Your task to perform on an android device: snooze an email in the gmail app Image 0: 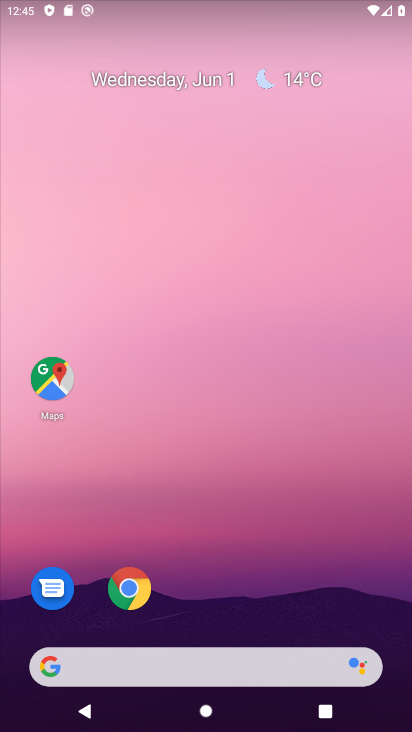
Step 0: press home button
Your task to perform on an android device: snooze an email in the gmail app Image 1: 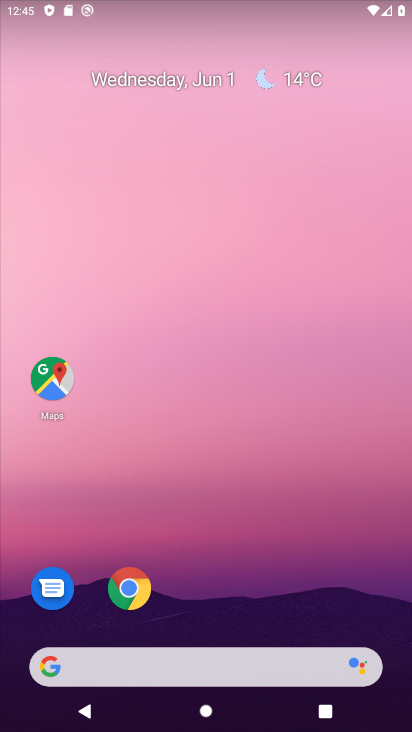
Step 1: drag from (255, 549) to (238, 1)
Your task to perform on an android device: snooze an email in the gmail app Image 2: 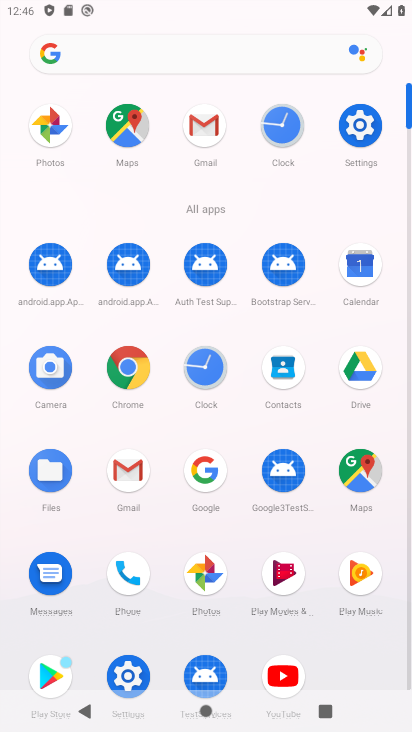
Step 2: click (211, 138)
Your task to perform on an android device: snooze an email in the gmail app Image 3: 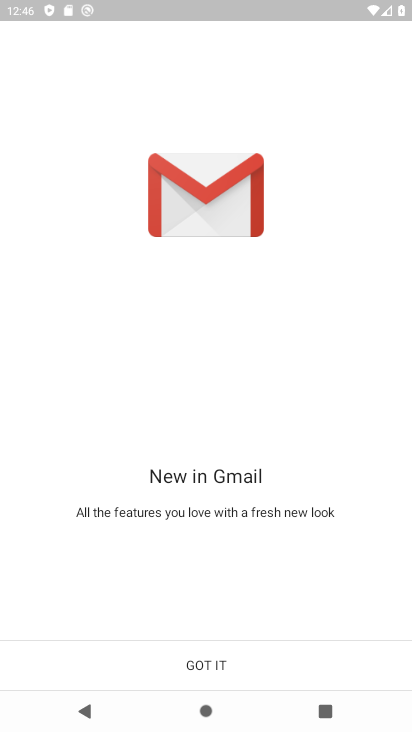
Step 3: click (215, 654)
Your task to perform on an android device: snooze an email in the gmail app Image 4: 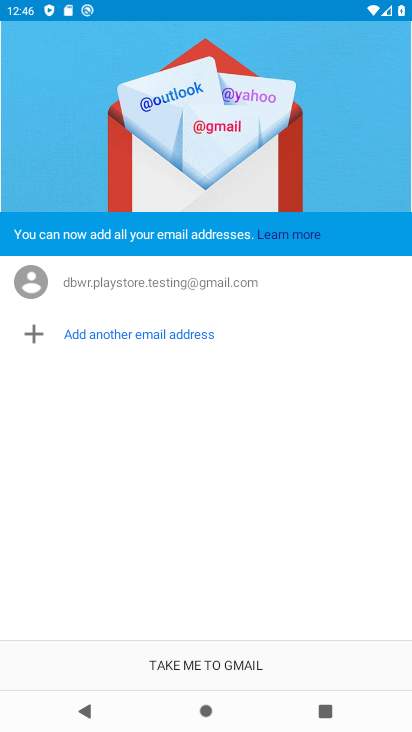
Step 4: click (186, 674)
Your task to perform on an android device: snooze an email in the gmail app Image 5: 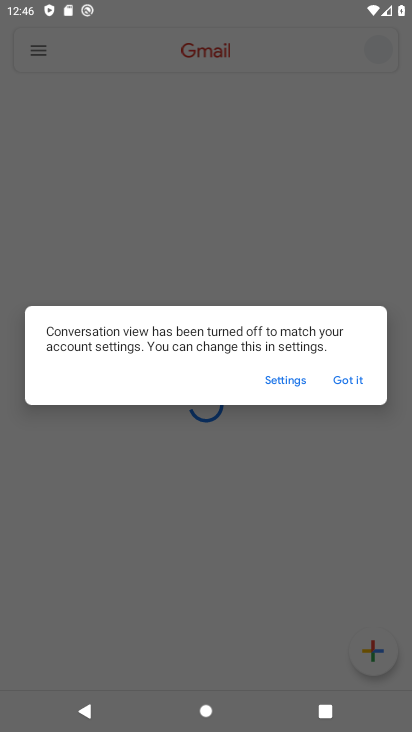
Step 5: click (341, 377)
Your task to perform on an android device: snooze an email in the gmail app Image 6: 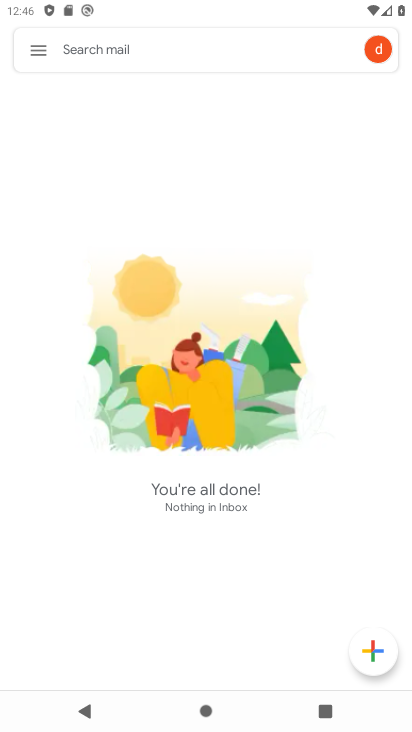
Step 6: click (42, 42)
Your task to perform on an android device: snooze an email in the gmail app Image 7: 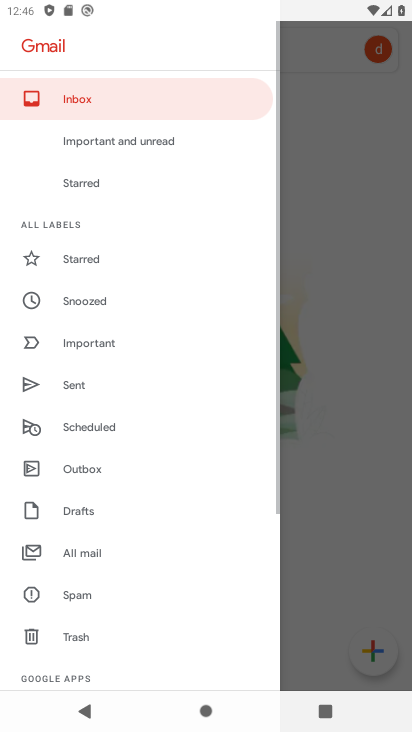
Step 7: click (344, 323)
Your task to perform on an android device: snooze an email in the gmail app Image 8: 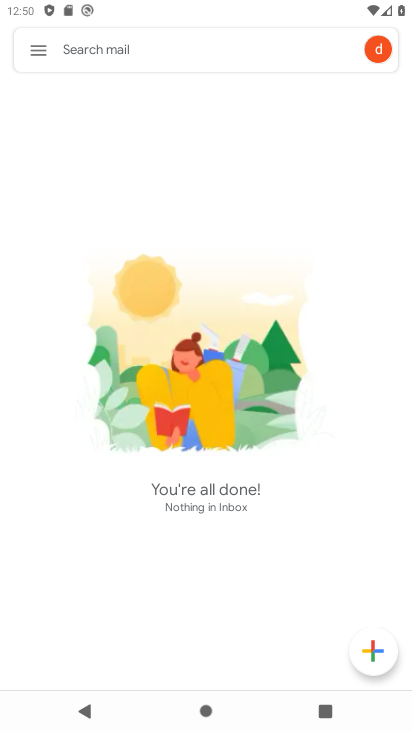
Step 8: task complete